Your task to perform on an android device: turn notification dots off Image 0: 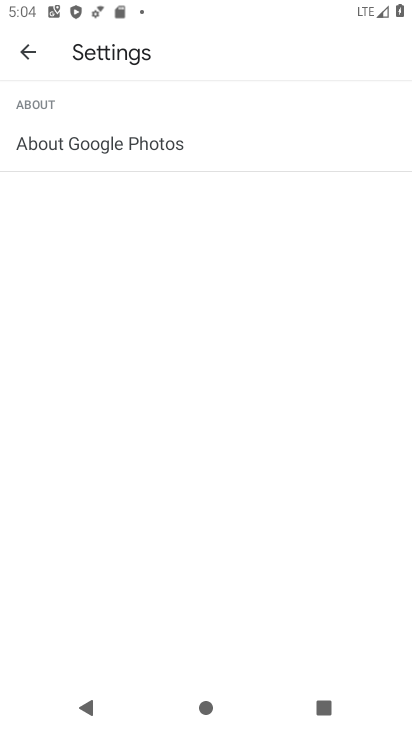
Step 0: press back button
Your task to perform on an android device: turn notification dots off Image 1: 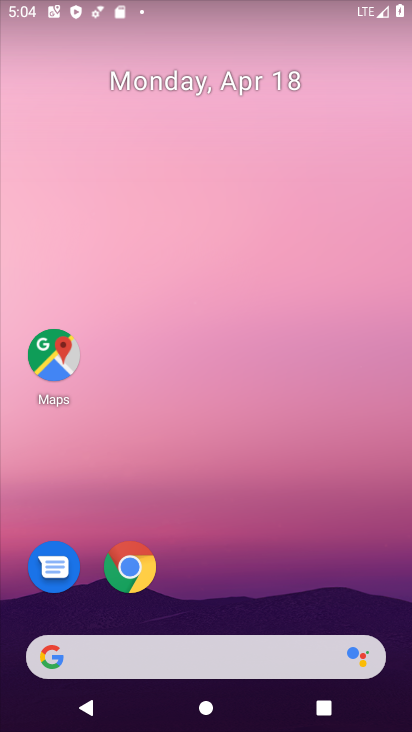
Step 1: drag from (251, 448) to (155, 3)
Your task to perform on an android device: turn notification dots off Image 2: 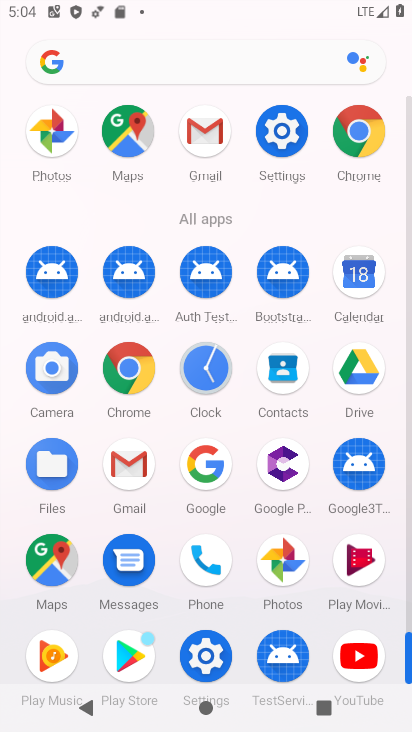
Step 2: click (284, 130)
Your task to perform on an android device: turn notification dots off Image 3: 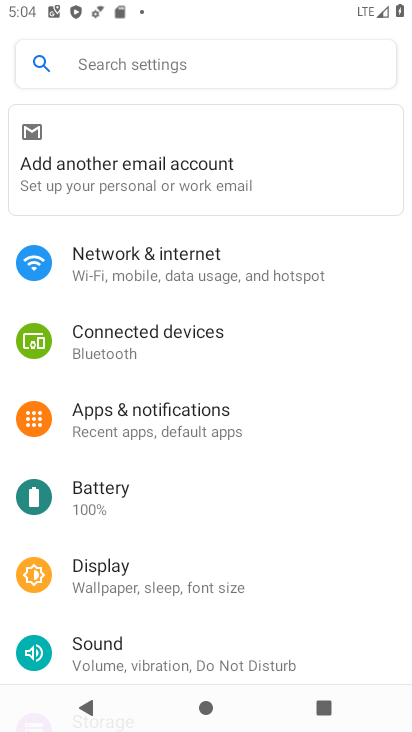
Step 3: drag from (343, 475) to (345, 202)
Your task to perform on an android device: turn notification dots off Image 4: 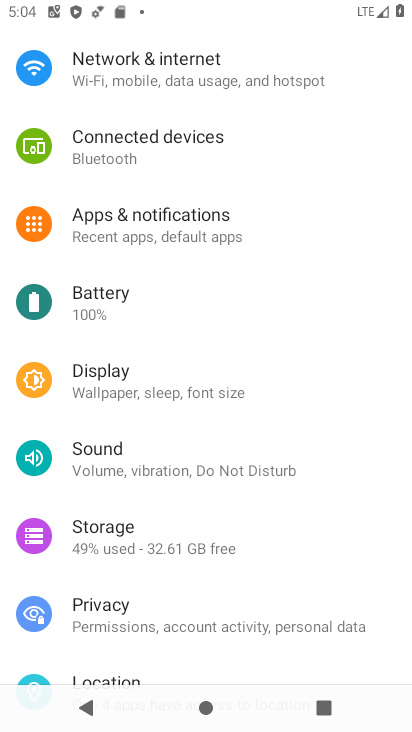
Step 4: click (226, 215)
Your task to perform on an android device: turn notification dots off Image 5: 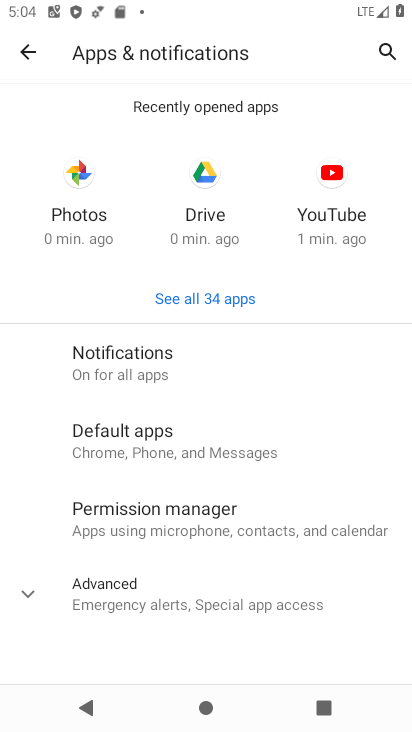
Step 5: click (197, 368)
Your task to perform on an android device: turn notification dots off Image 6: 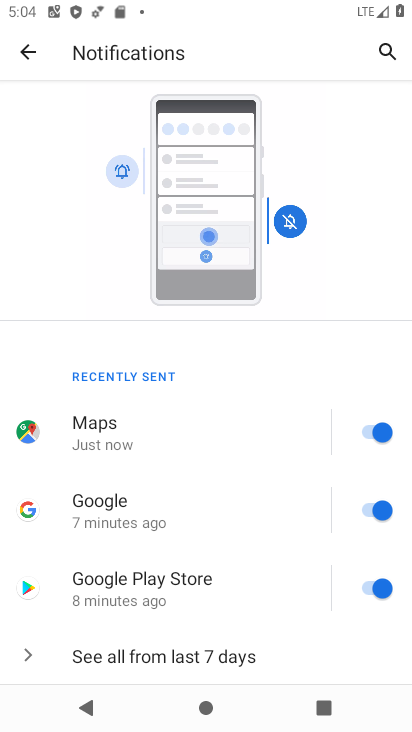
Step 6: drag from (248, 533) to (239, 110)
Your task to perform on an android device: turn notification dots off Image 7: 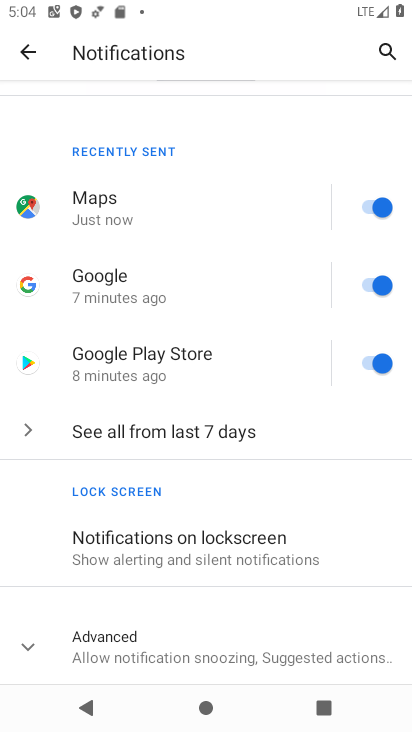
Step 7: drag from (224, 615) to (232, 231)
Your task to perform on an android device: turn notification dots off Image 8: 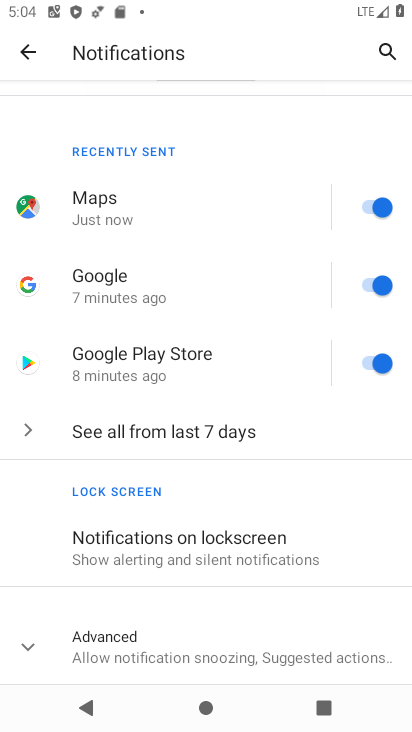
Step 8: click (69, 647)
Your task to perform on an android device: turn notification dots off Image 9: 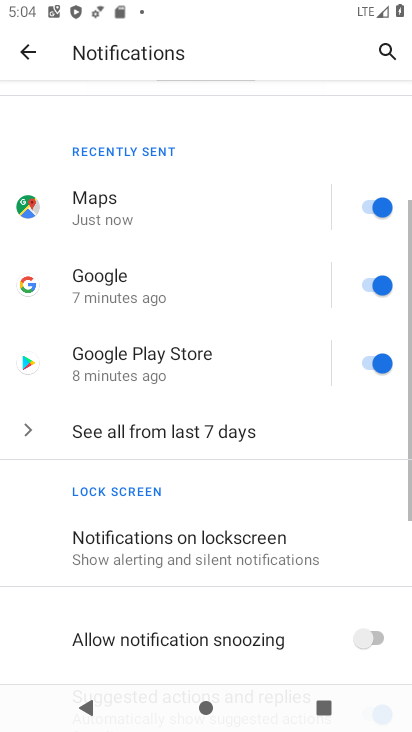
Step 9: drag from (236, 522) to (250, 132)
Your task to perform on an android device: turn notification dots off Image 10: 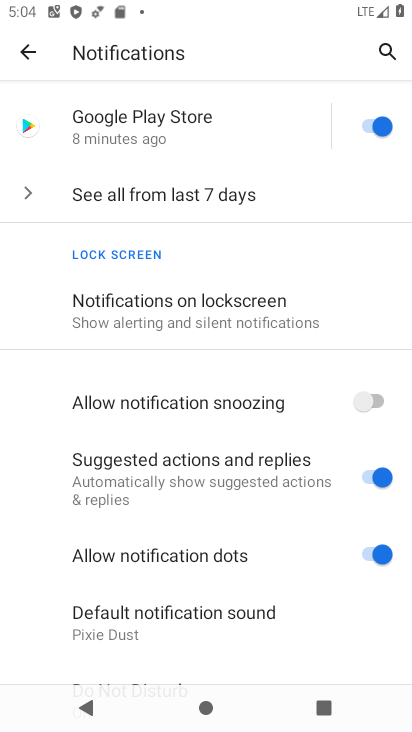
Step 10: click (367, 554)
Your task to perform on an android device: turn notification dots off Image 11: 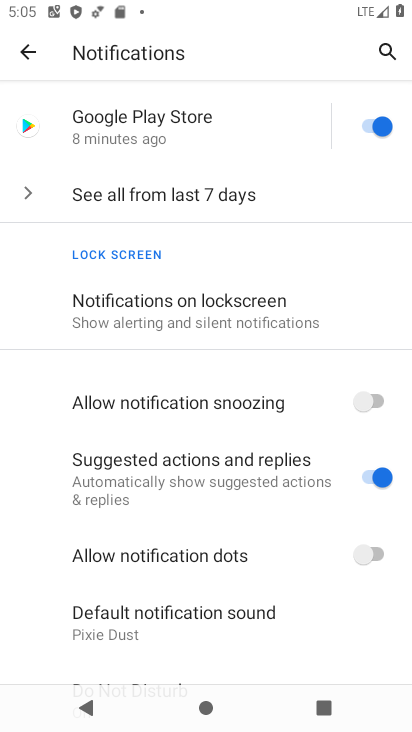
Step 11: task complete